Your task to perform on an android device: Search for "alienware area 51" on amazon, select the first entry, add it to the cart, then select checkout. Image 0: 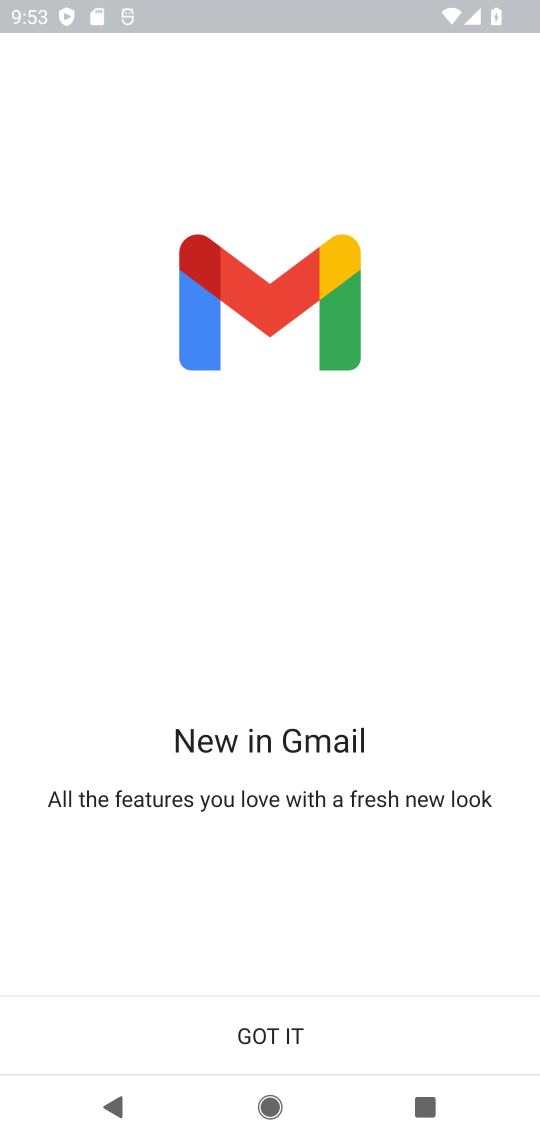
Step 0: press home button
Your task to perform on an android device: Search for "alienware area 51" on amazon, select the first entry, add it to the cart, then select checkout. Image 1: 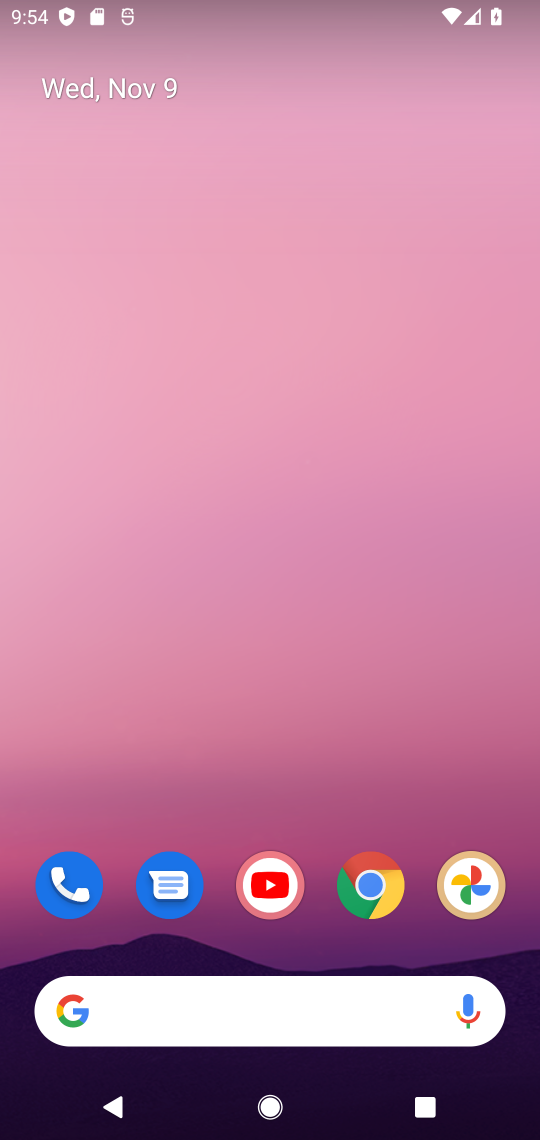
Step 1: click (382, 859)
Your task to perform on an android device: Search for "alienware area 51" on amazon, select the first entry, add it to the cart, then select checkout. Image 2: 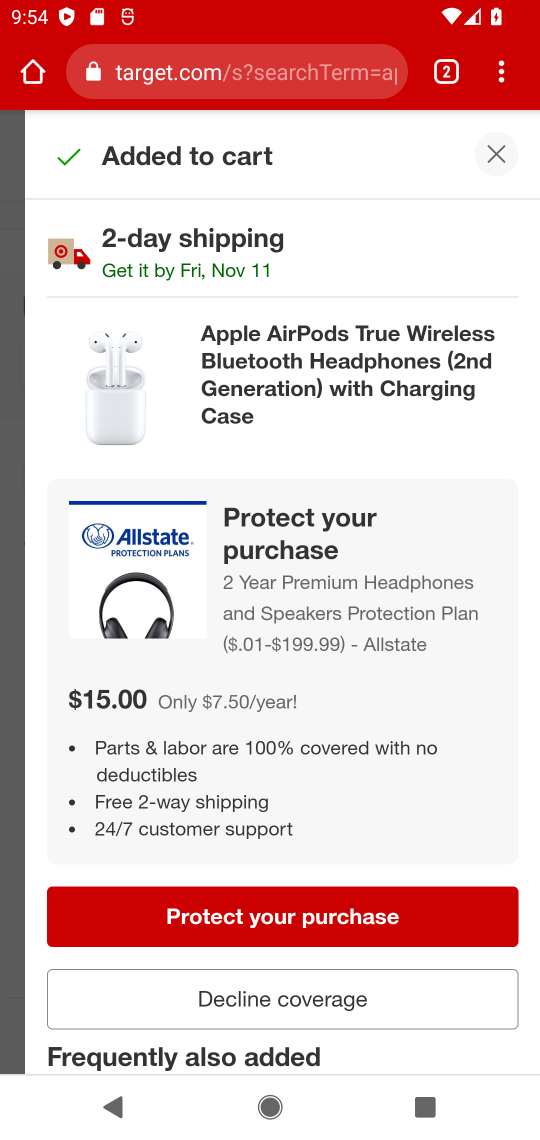
Step 2: click (446, 78)
Your task to perform on an android device: Search for "alienware area 51" on amazon, select the first entry, add it to the cart, then select checkout. Image 3: 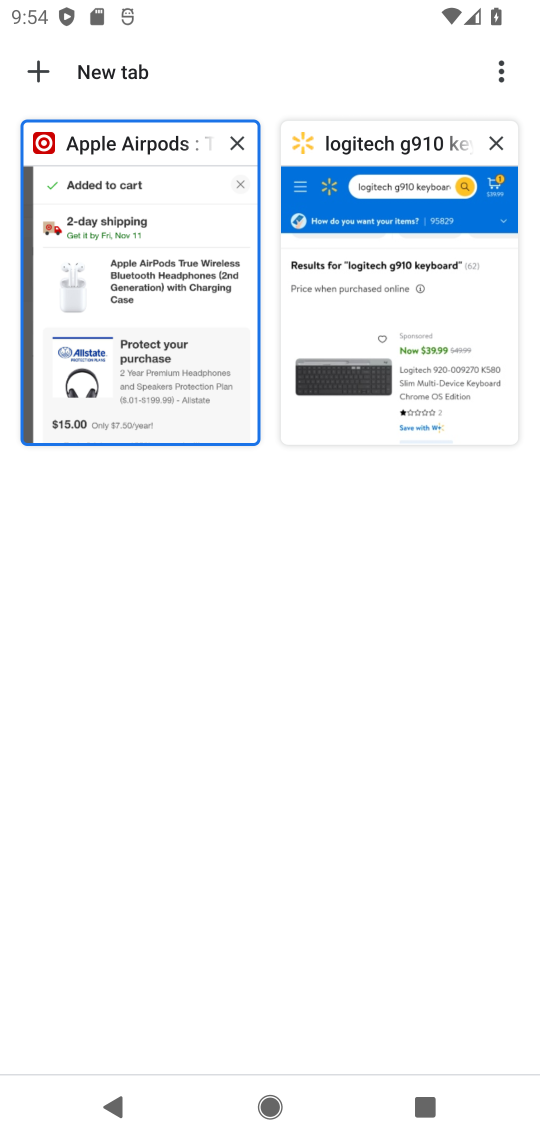
Step 3: click (40, 70)
Your task to perform on an android device: Search for "alienware area 51" on amazon, select the first entry, add it to the cart, then select checkout. Image 4: 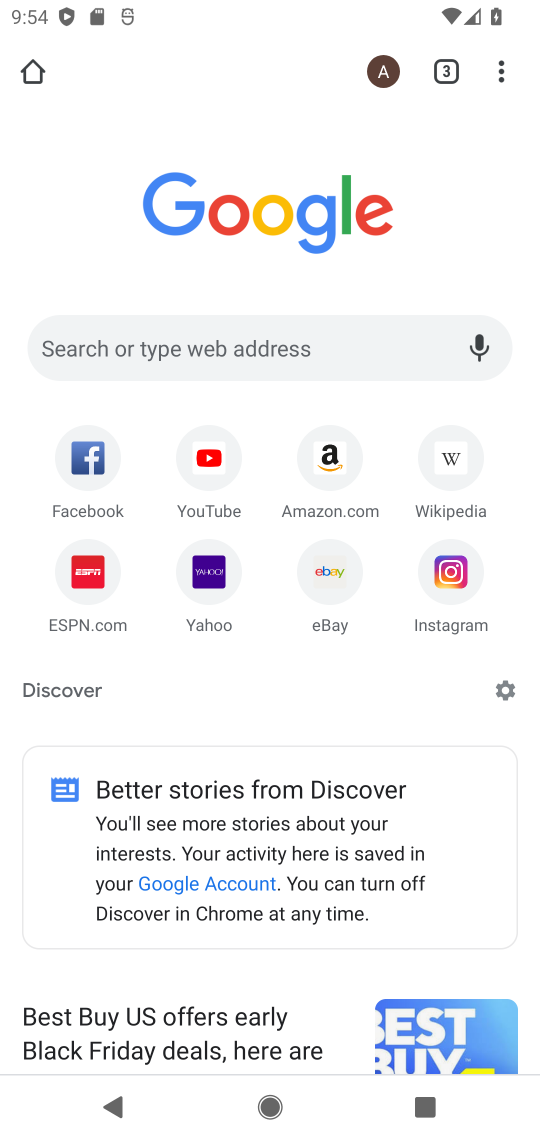
Step 4: click (332, 472)
Your task to perform on an android device: Search for "alienware area 51" on amazon, select the first entry, add it to the cart, then select checkout. Image 5: 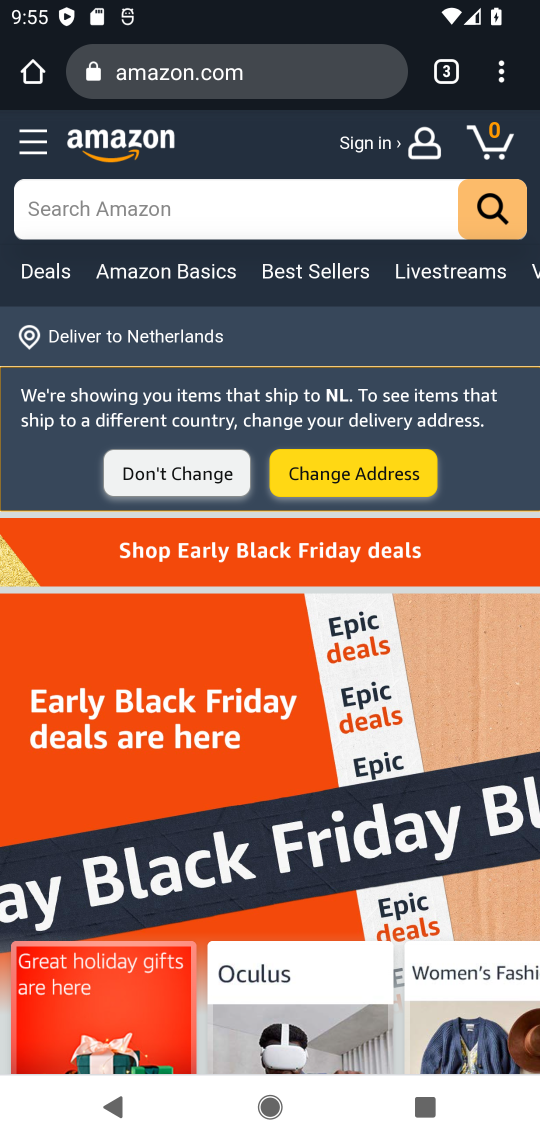
Step 5: click (216, 206)
Your task to perform on an android device: Search for "alienware area 51" on amazon, select the first entry, add it to the cart, then select checkout. Image 6: 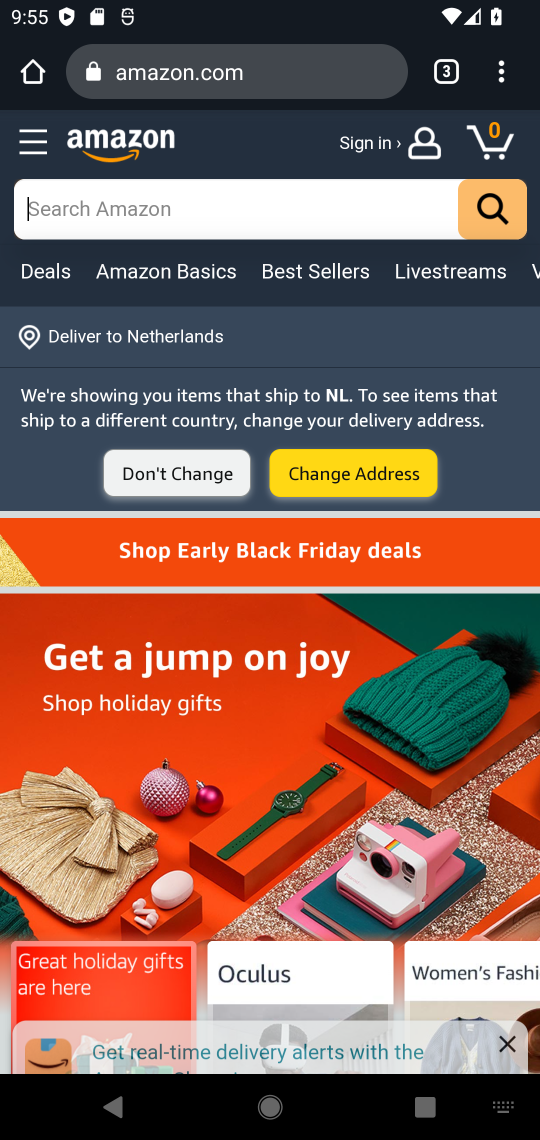
Step 6: type "alienware area 51"
Your task to perform on an android device: Search for "alienware area 51" on amazon, select the first entry, add it to the cart, then select checkout. Image 7: 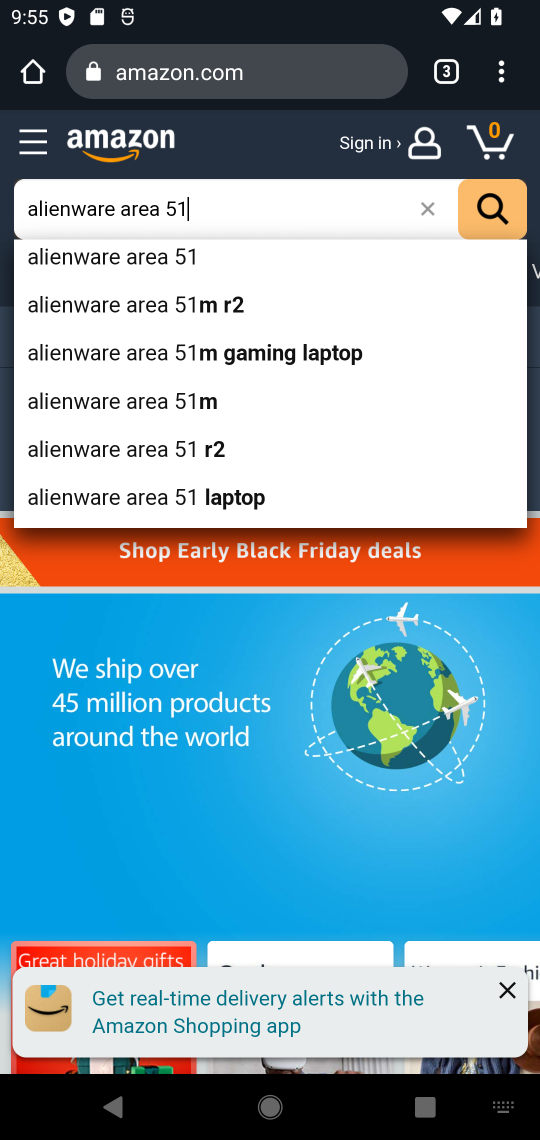
Step 7: click (168, 251)
Your task to perform on an android device: Search for "alienware area 51" on amazon, select the first entry, add it to the cart, then select checkout. Image 8: 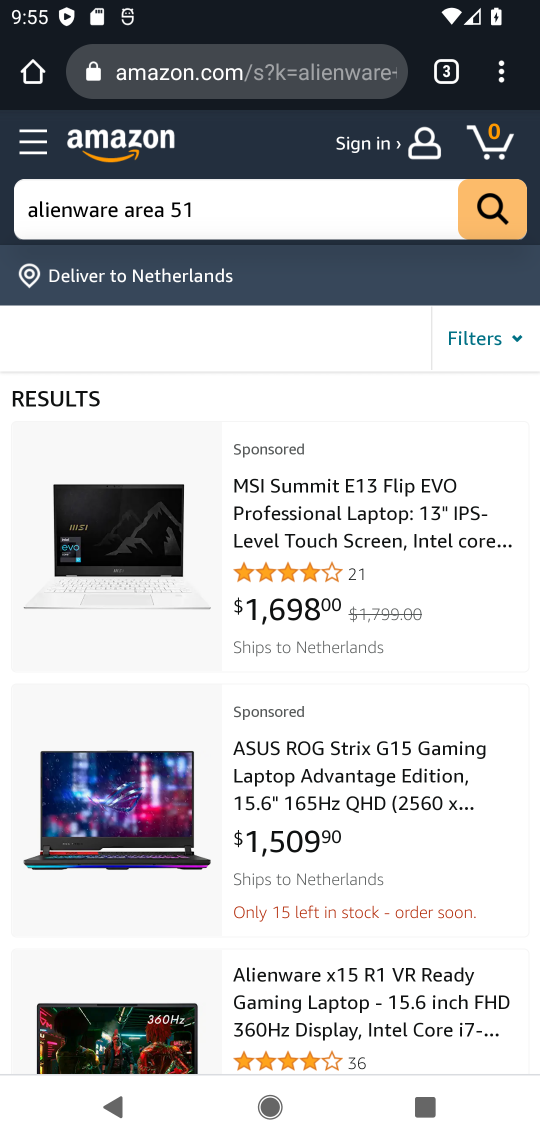
Step 8: click (373, 991)
Your task to perform on an android device: Search for "alienware area 51" on amazon, select the first entry, add it to the cart, then select checkout. Image 9: 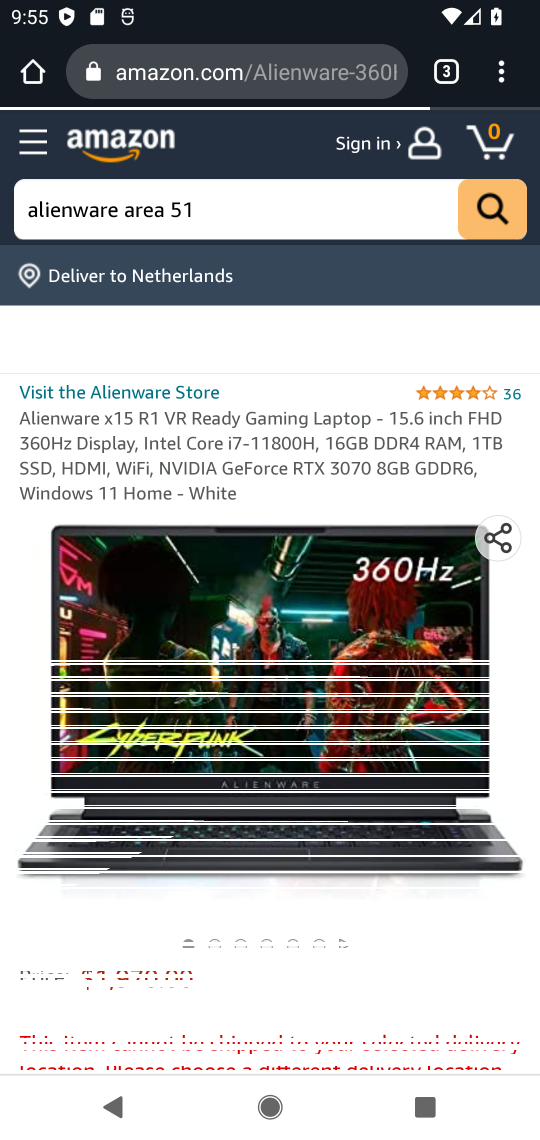
Step 9: drag from (343, 1013) to (431, 331)
Your task to perform on an android device: Search for "alienware area 51" on amazon, select the first entry, add it to the cart, then select checkout. Image 10: 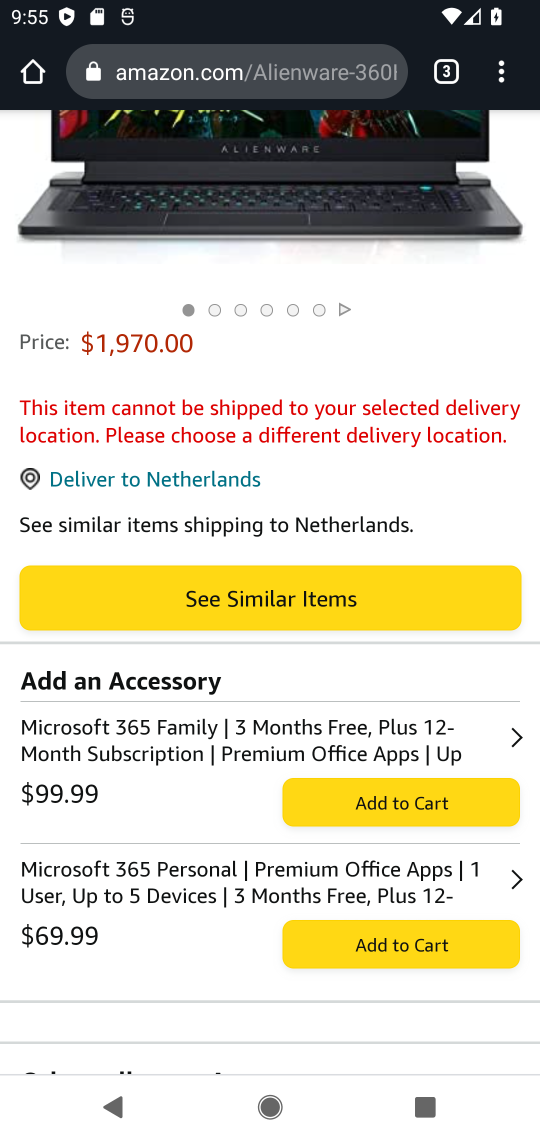
Step 10: click (288, 604)
Your task to perform on an android device: Search for "alienware area 51" on amazon, select the first entry, add it to the cart, then select checkout. Image 11: 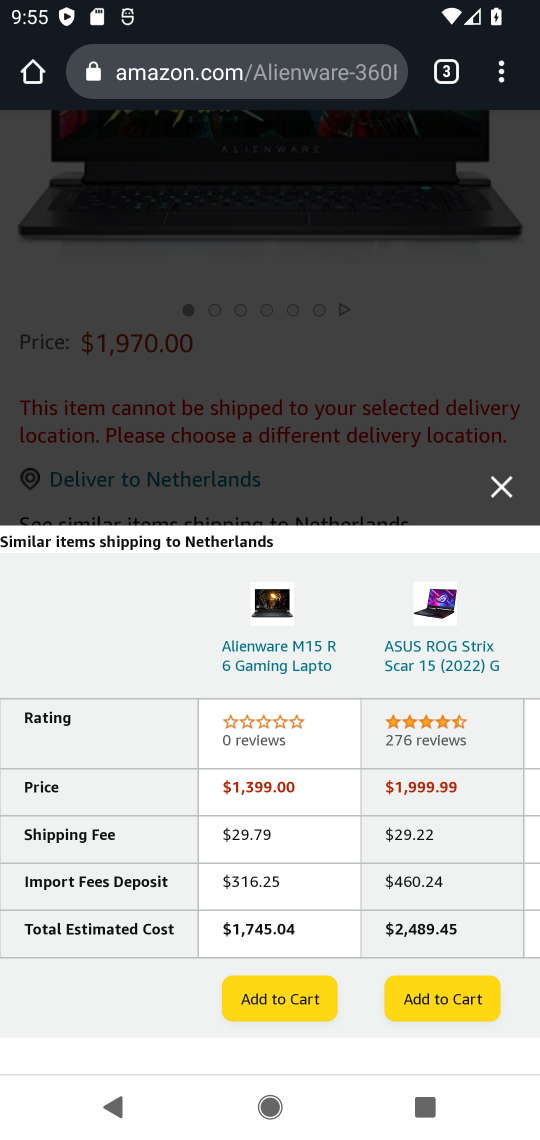
Step 11: click (286, 983)
Your task to perform on an android device: Search for "alienware area 51" on amazon, select the first entry, add it to the cart, then select checkout. Image 12: 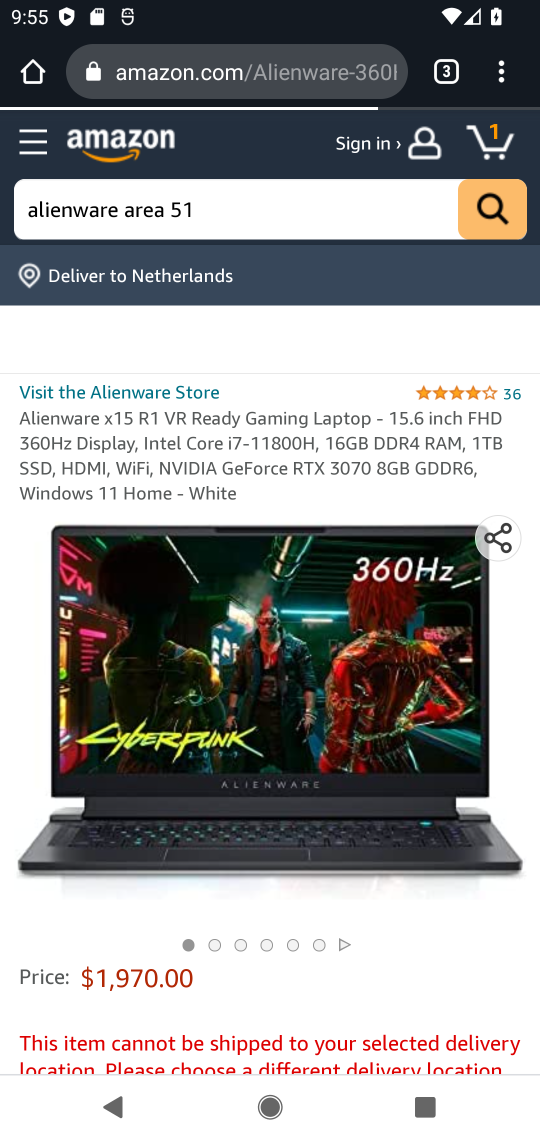
Step 12: click (505, 129)
Your task to perform on an android device: Search for "alienware area 51" on amazon, select the first entry, add it to the cart, then select checkout. Image 13: 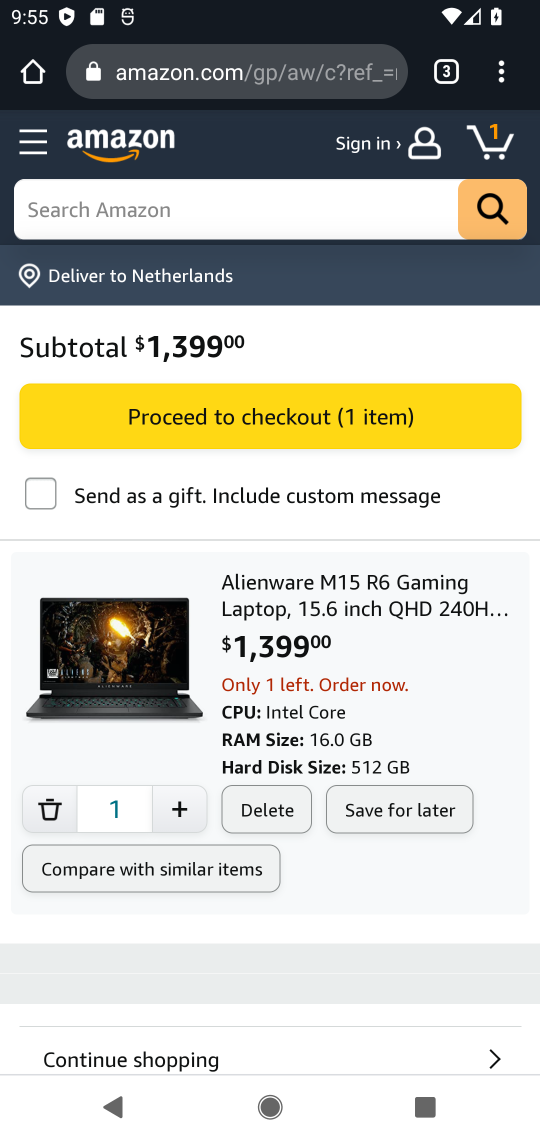
Step 13: click (313, 426)
Your task to perform on an android device: Search for "alienware area 51" on amazon, select the first entry, add it to the cart, then select checkout. Image 14: 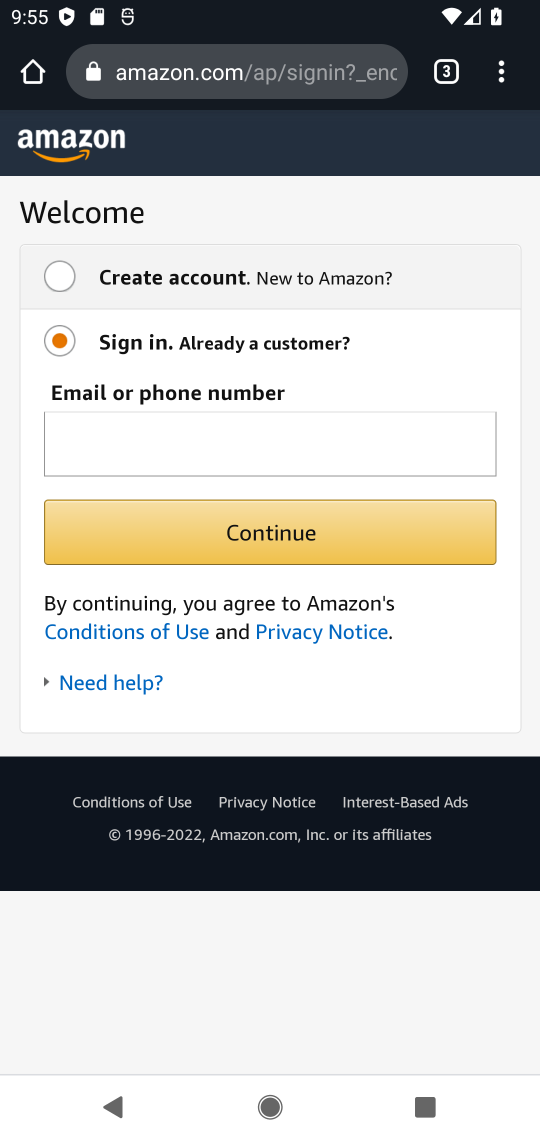
Step 14: task complete